Your task to perform on an android device: open chrome privacy settings Image 0: 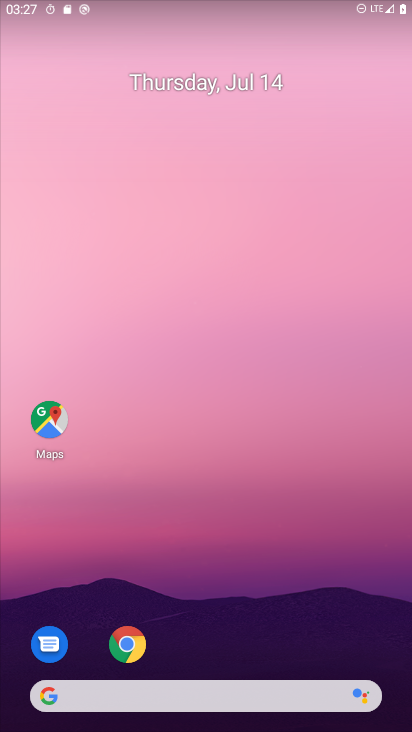
Step 0: drag from (276, 519) to (225, 2)
Your task to perform on an android device: open chrome privacy settings Image 1: 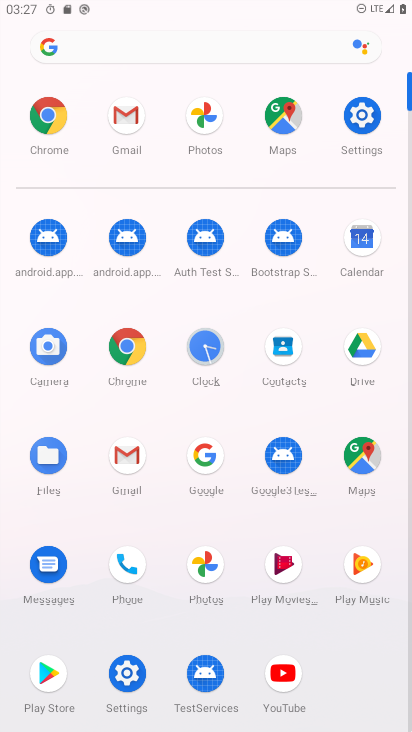
Step 1: click (125, 349)
Your task to perform on an android device: open chrome privacy settings Image 2: 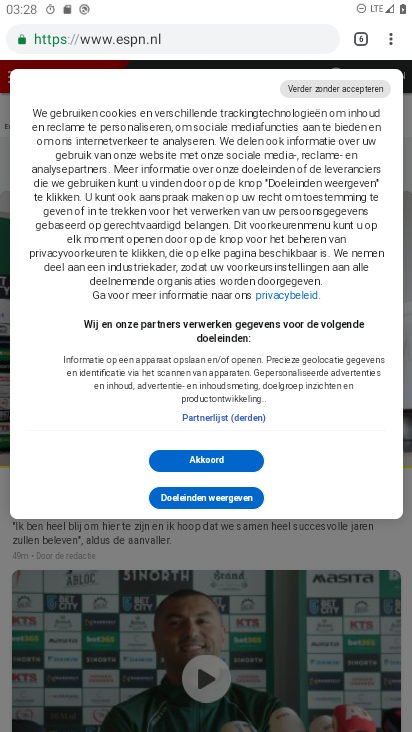
Step 2: drag from (396, 37) to (265, 482)
Your task to perform on an android device: open chrome privacy settings Image 3: 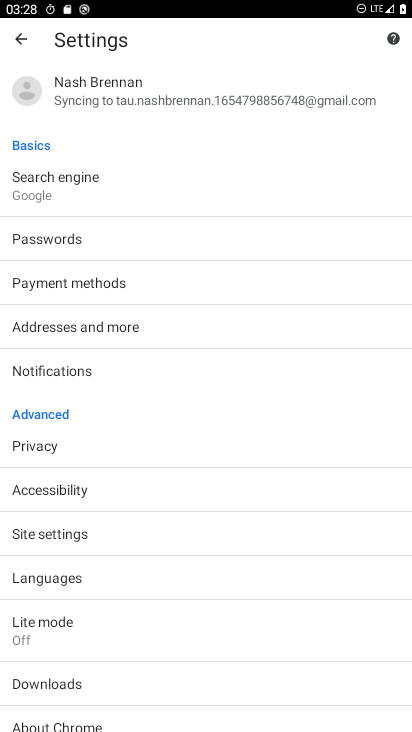
Step 3: click (36, 442)
Your task to perform on an android device: open chrome privacy settings Image 4: 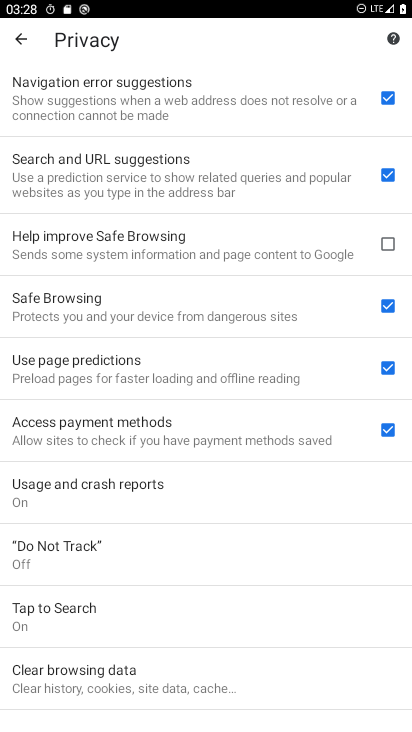
Step 4: task complete